Your task to perform on an android device: find which apps use the phone's location Image 0: 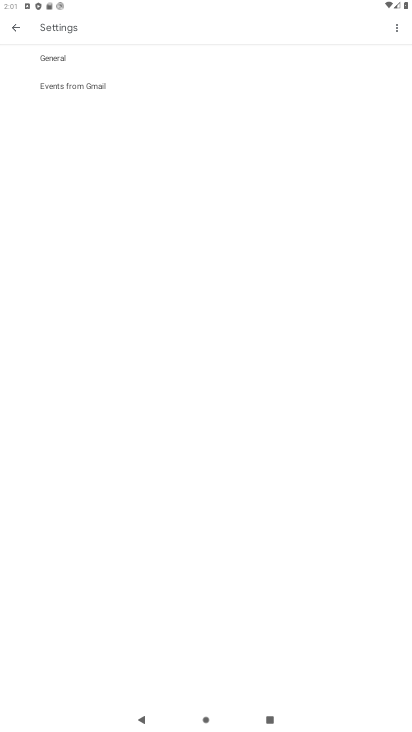
Step 0: press home button
Your task to perform on an android device: find which apps use the phone's location Image 1: 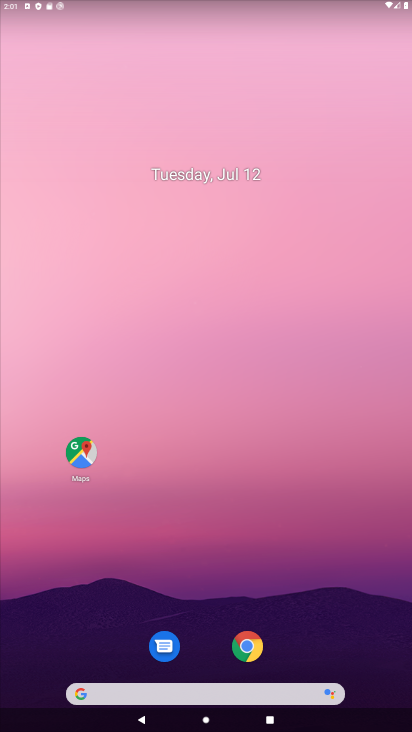
Step 1: drag from (261, 571) to (341, 12)
Your task to perform on an android device: find which apps use the phone's location Image 2: 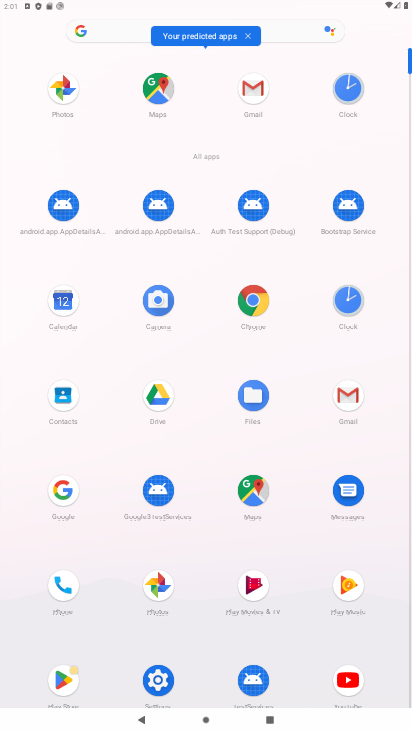
Step 2: drag from (238, 584) to (232, 441)
Your task to perform on an android device: find which apps use the phone's location Image 3: 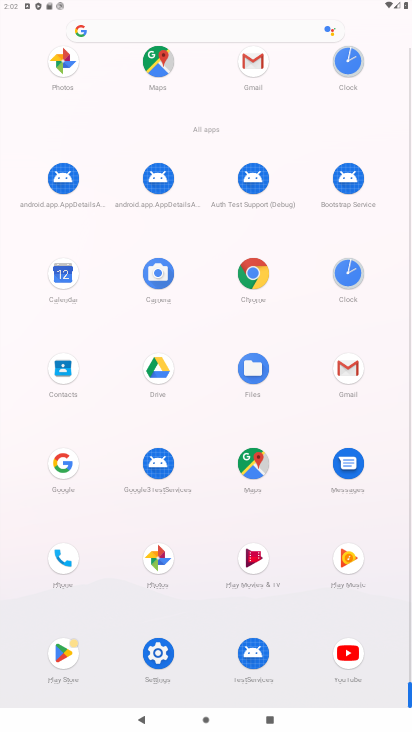
Step 3: click (166, 655)
Your task to perform on an android device: find which apps use the phone's location Image 4: 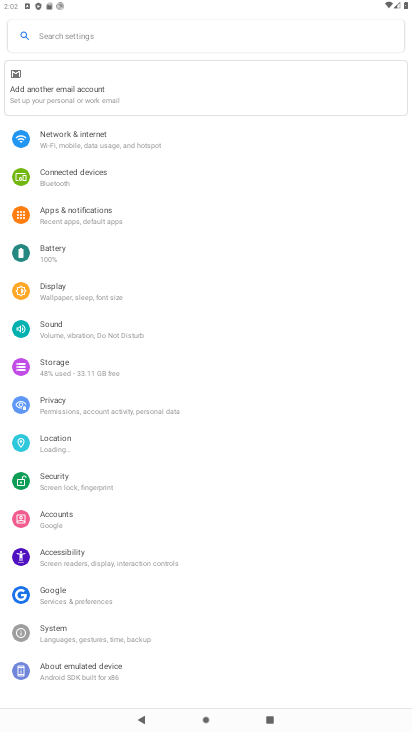
Step 4: click (93, 286)
Your task to perform on an android device: find which apps use the phone's location Image 5: 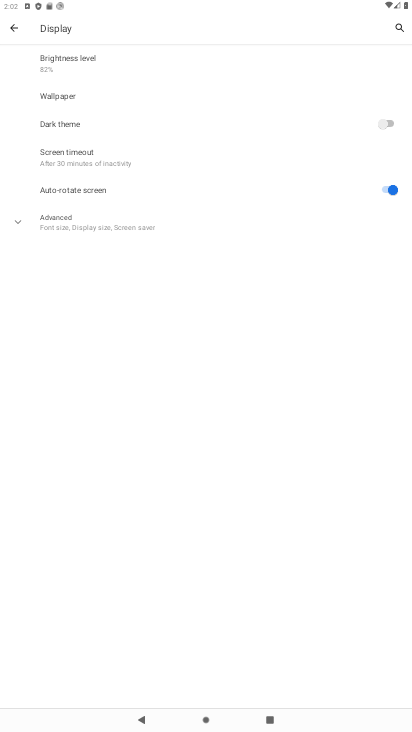
Step 5: click (20, 218)
Your task to perform on an android device: find which apps use the phone's location Image 6: 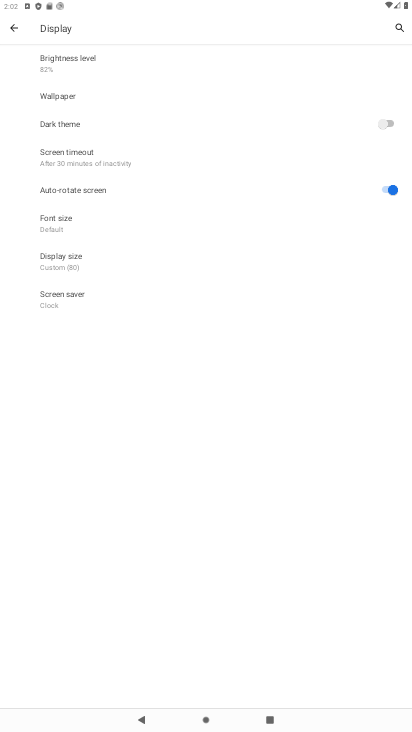
Step 6: click (55, 253)
Your task to perform on an android device: find which apps use the phone's location Image 7: 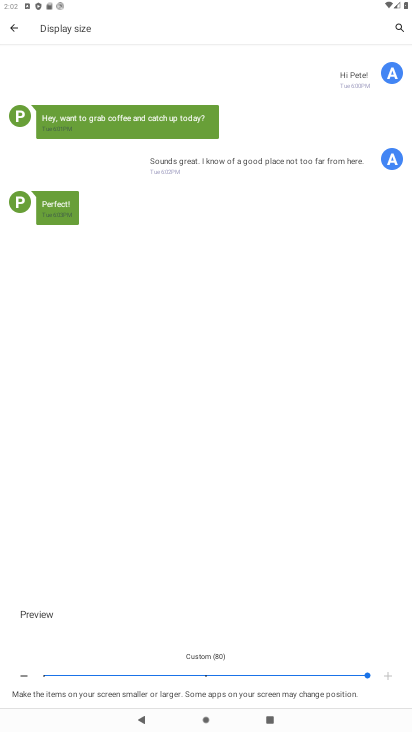
Step 7: click (24, 672)
Your task to perform on an android device: find which apps use the phone's location Image 8: 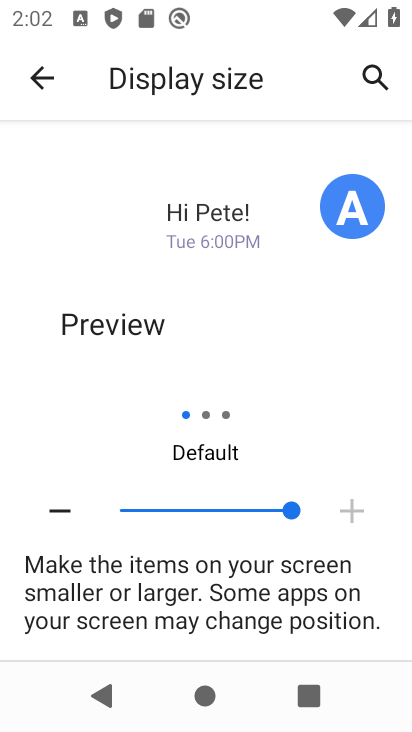
Step 8: click (59, 504)
Your task to perform on an android device: find which apps use the phone's location Image 9: 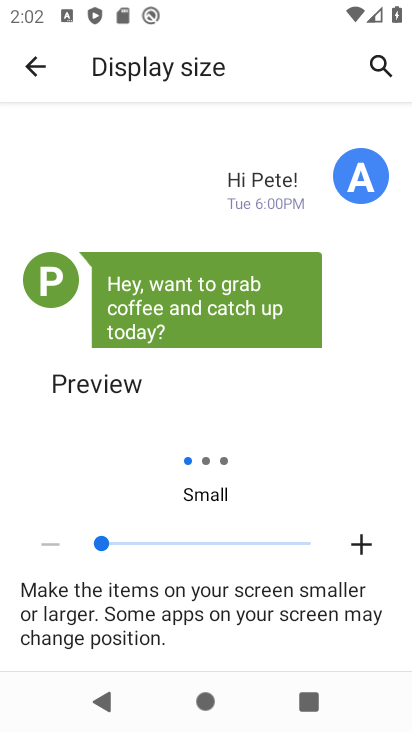
Step 9: click (38, 68)
Your task to perform on an android device: find which apps use the phone's location Image 10: 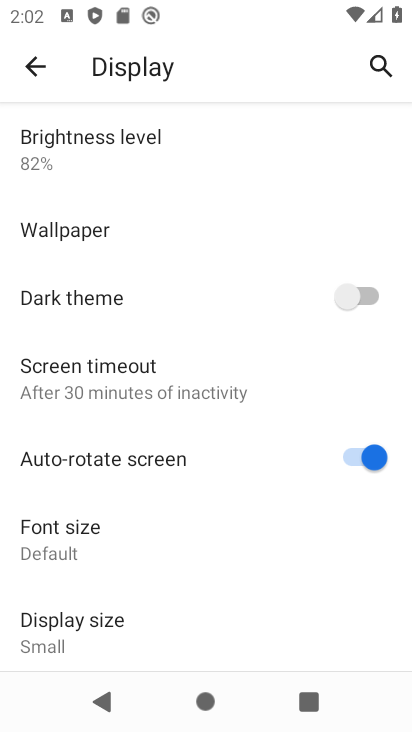
Step 10: click (38, 69)
Your task to perform on an android device: find which apps use the phone's location Image 11: 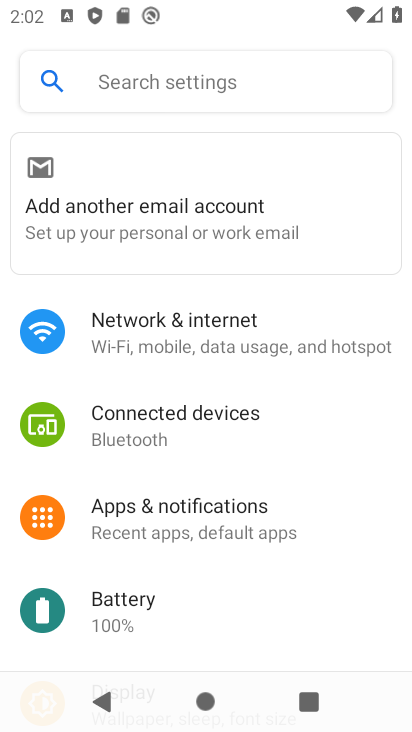
Step 11: drag from (241, 591) to (290, 0)
Your task to perform on an android device: find which apps use the phone's location Image 12: 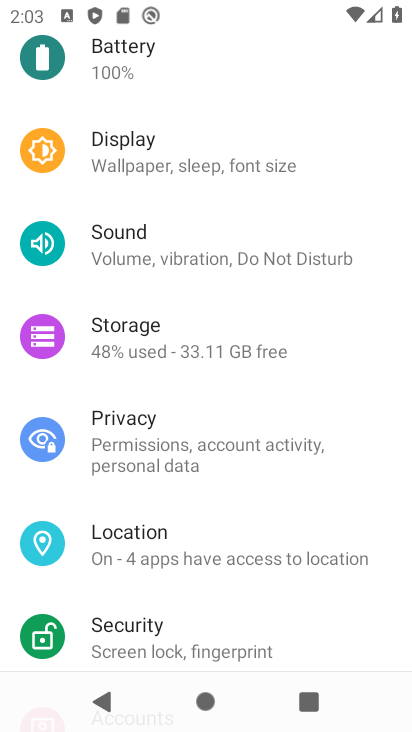
Step 12: click (194, 536)
Your task to perform on an android device: find which apps use the phone's location Image 13: 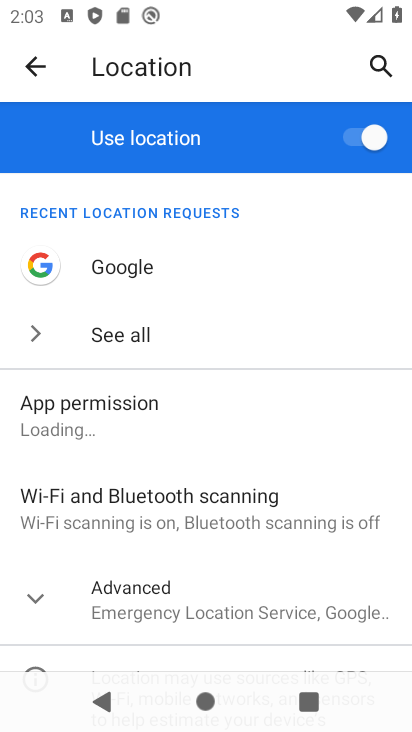
Step 13: click (147, 419)
Your task to perform on an android device: find which apps use the phone's location Image 14: 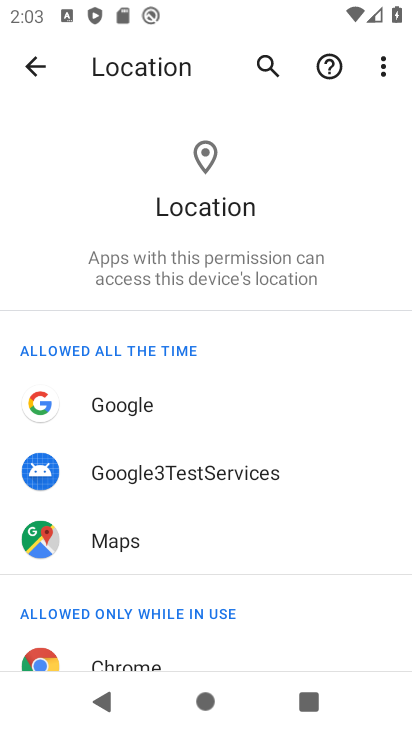
Step 14: task complete